Your task to perform on an android device: toggle improve location accuracy Image 0: 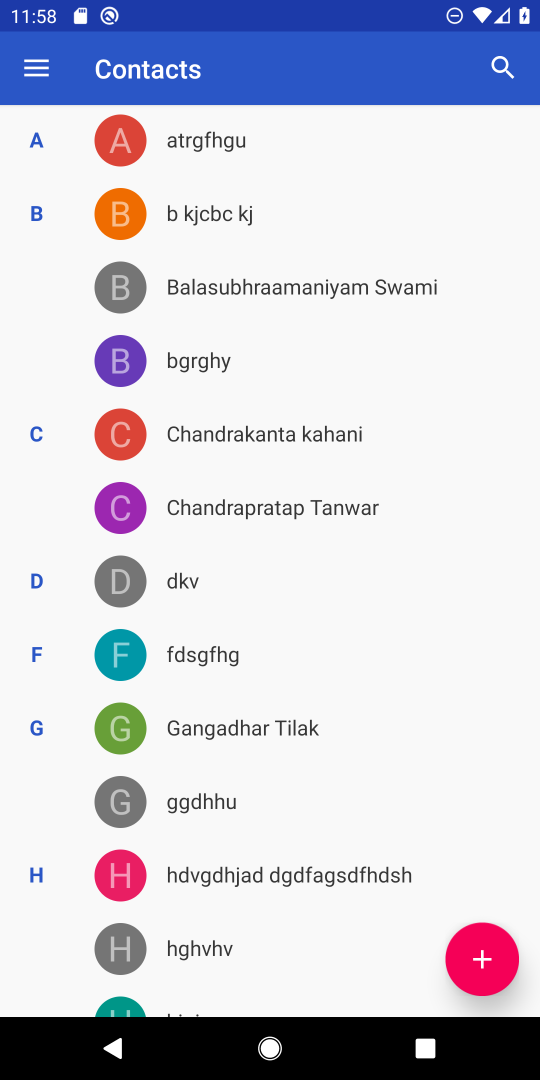
Step 0: press back button
Your task to perform on an android device: toggle improve location accuracy Image 1: 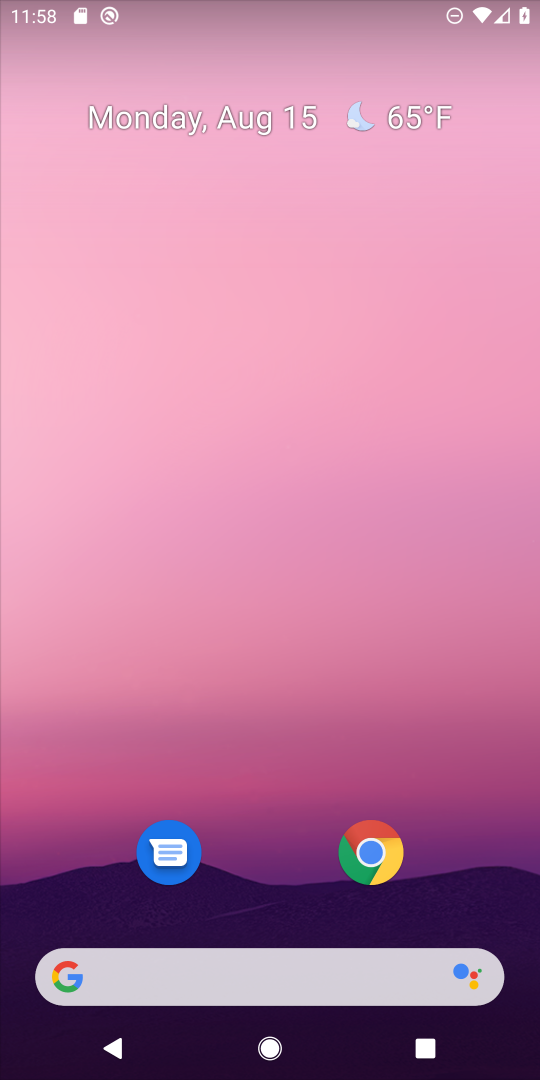
Step 1: drag from (277, 813) to (332, 61)
Your task to perform on an android device: toggle improve location accuracy Image 2: 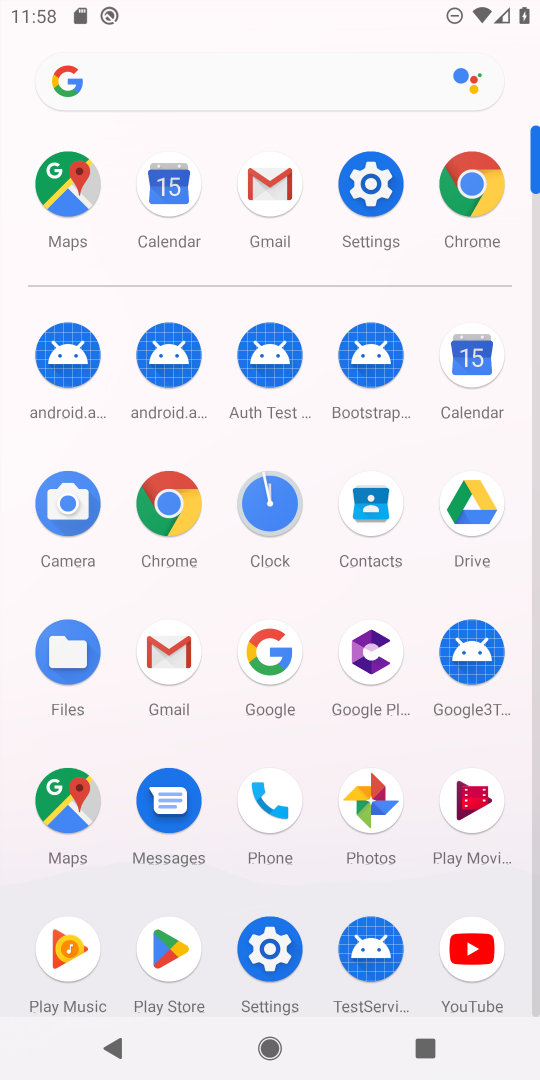
Step 2: click (278, 965)
Your task to perform on an android device: toggle improve location accuracy Image 3: 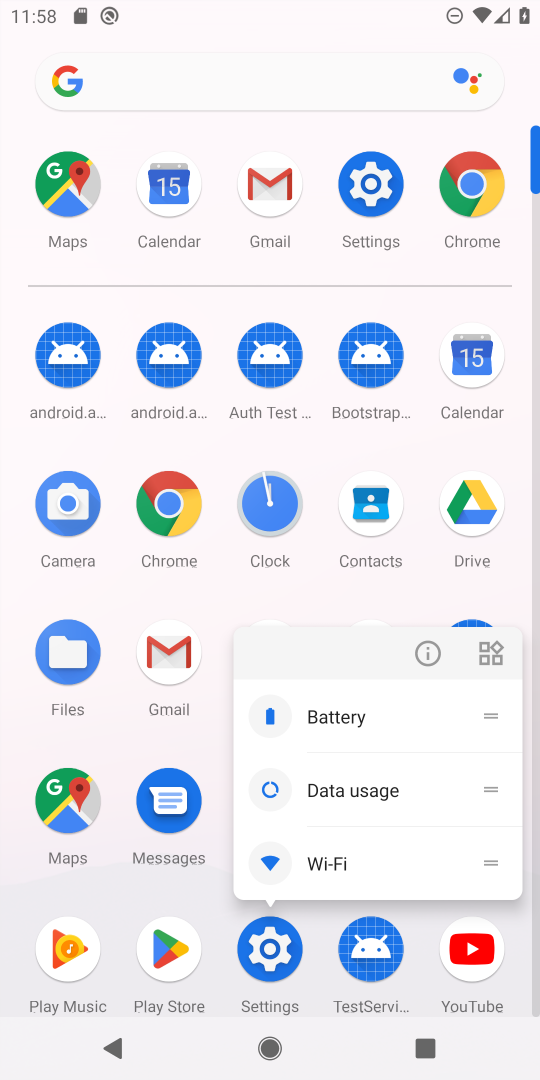
Step 3: click (368, 177)
Your task to perform on an android device: toggle improve location accuracy Image 4: 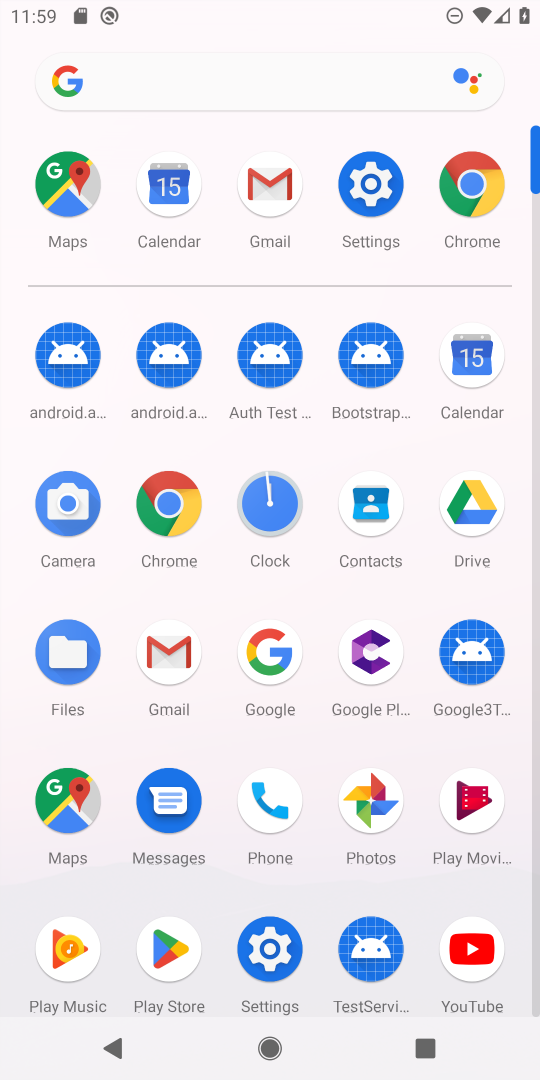
Step 4: click (371, 196)
Your task to perform on an android device: toggle improve location accuracy Image 5: 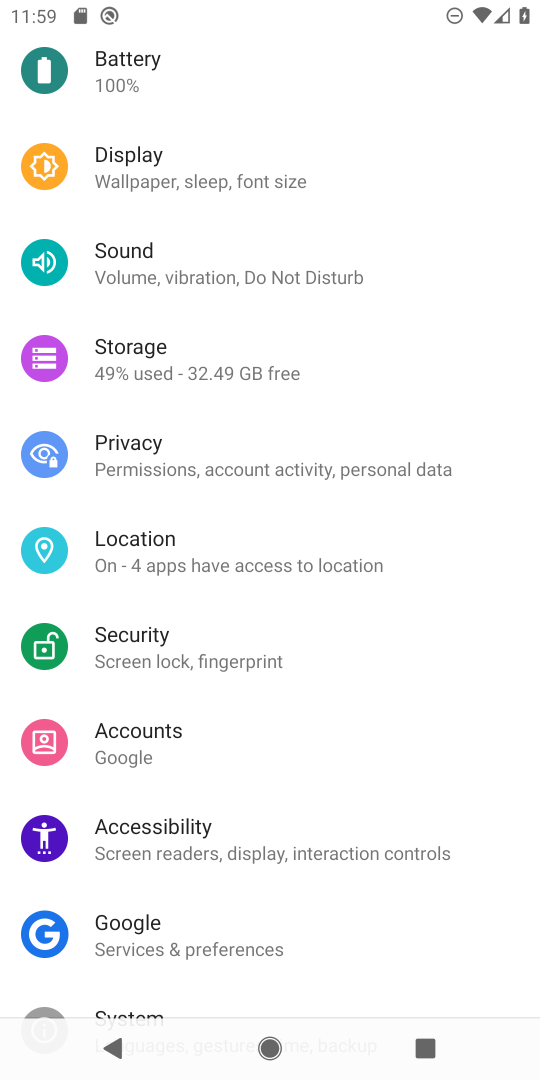
Step 5: click (154, 552)
Your task to perform on an android device: toggle improve location accuracy Image 6: 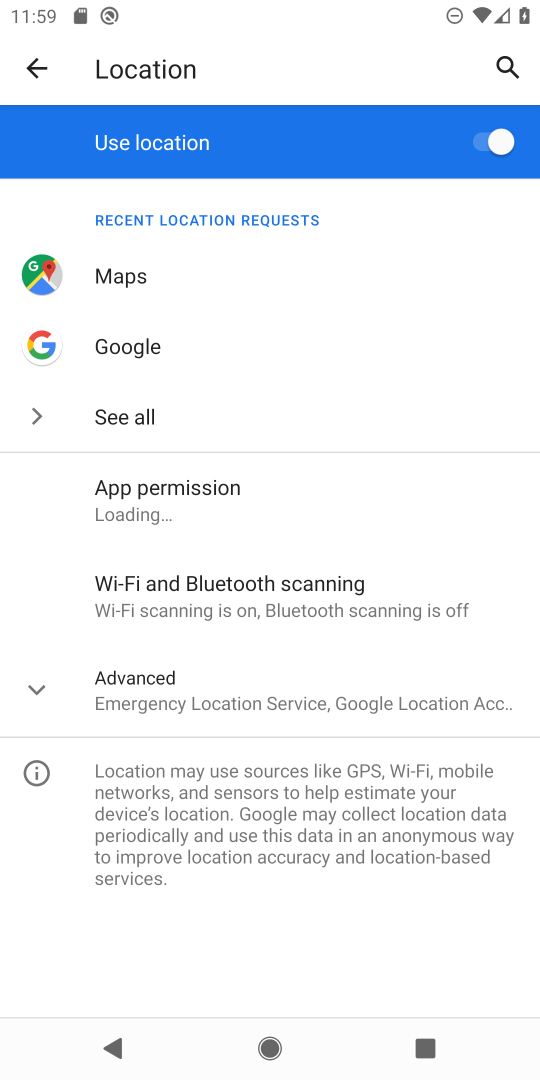
Step 6: click (298, 698)
Your task to perform on an android device: toggle improve location accuracy Image 7: 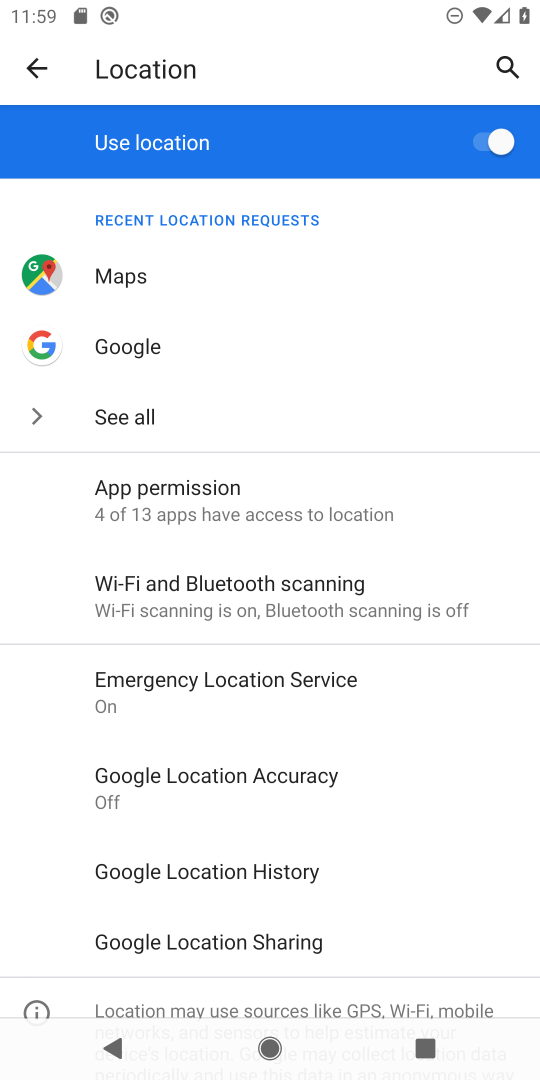
Step 7: click (267, 794)
Your task to perform on an android device: toggle improve location accuracy Image 8: 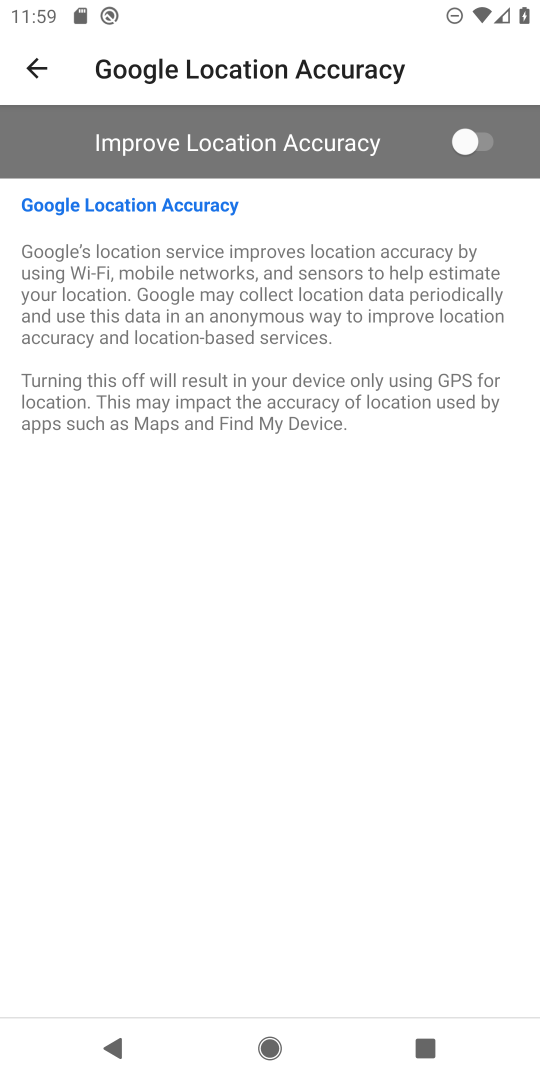
Step 8: click (466, 137)
Your task to perform on an android device: toggle improve location accuracy Image 9: 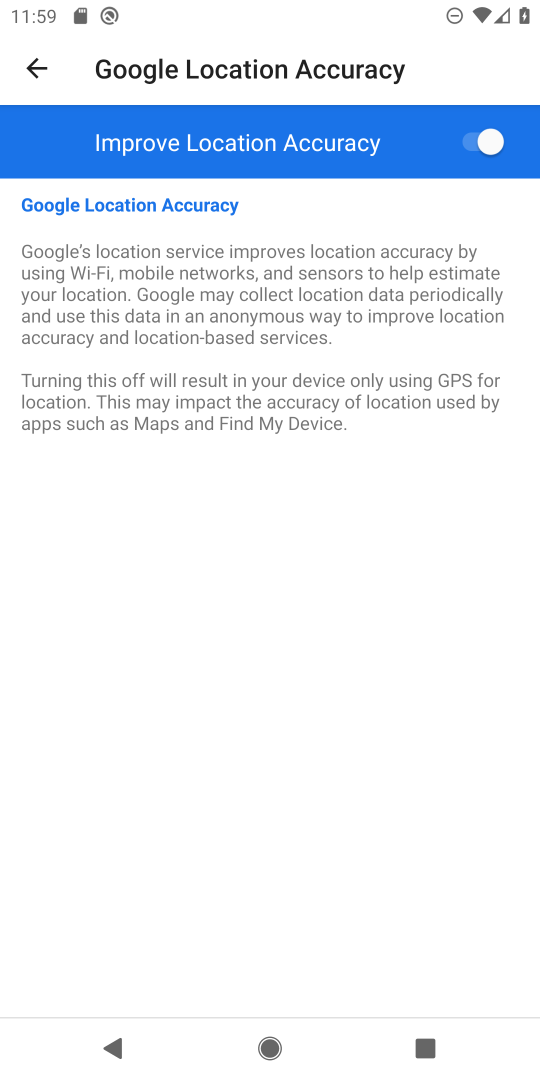
Step 9: task complete